Your task to perform on an android device: Open settings on Google Maps Image 0: 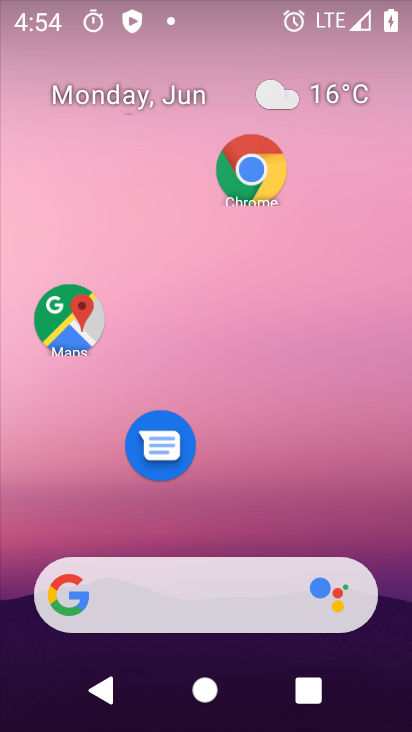
Step 0: click (70, 329)
Your task to perform on an android device: Open settings on Google Maps Image 1: 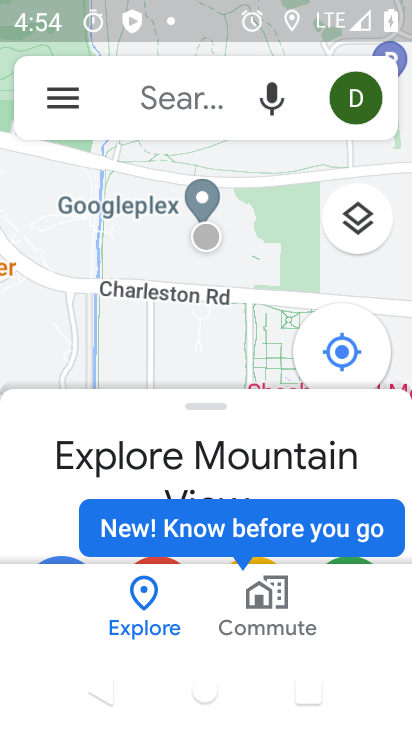
Step 1: drag from (123, 465) to (139, 218)
Your task to perform on an android device: Open settings on Google Maps Image 2: 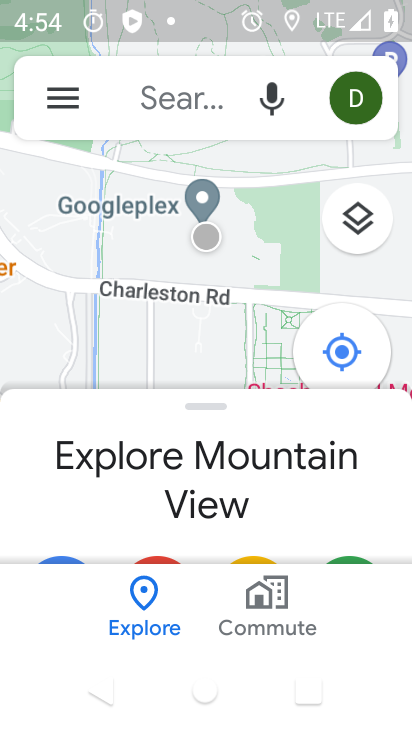
Step 2: click (151, 237)
Your task to perform on an android device: Open settings on Google Maps Image 3: 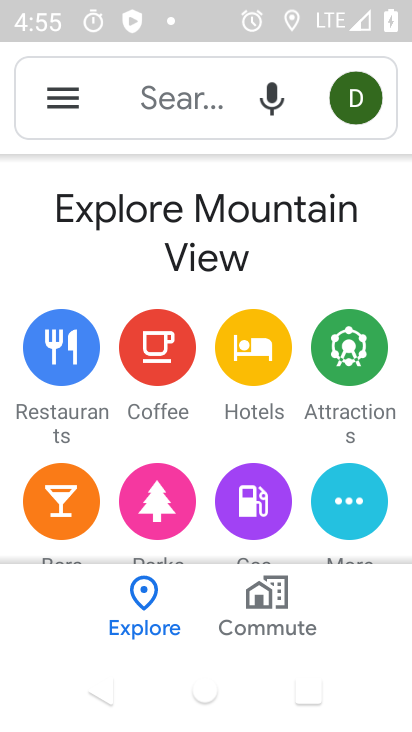
Step 3: press home button
Your task to perform on an android device: Open settings on Google Maps Image 4: 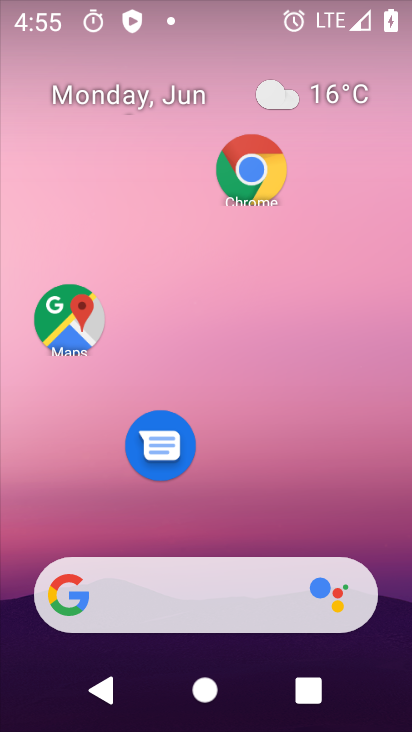
Step 4: click (67, 323)
Your task to perform on an android device: Open settings on Google Maps Image 5: 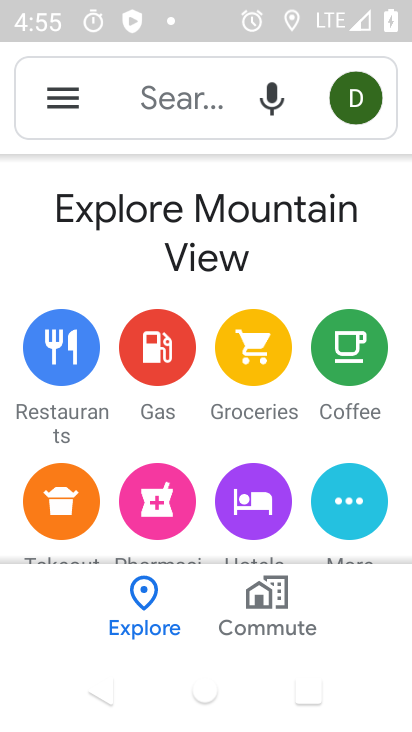
Step 5: drag from (209, 511) to (210, 358)
Your task to perform on an android device: Open settings on Google Maps Image 6: 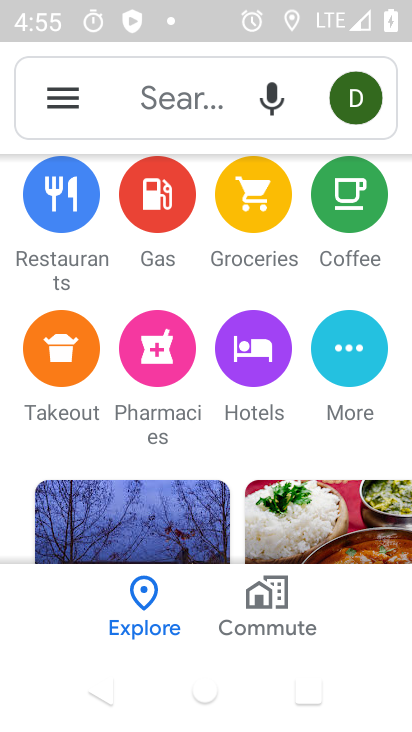
Step 6: click (52, 99)
Your task to perform on an android device: Open settings on Google Maps Image 7: 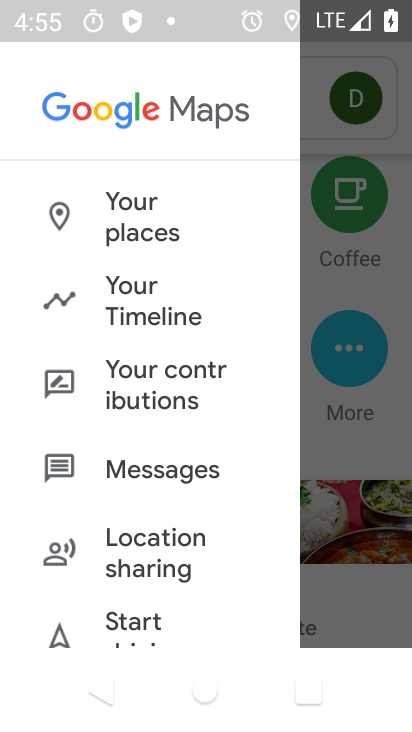
Step 7: drag from (153, 564) to (168, 379)
Your task to perform on an android device: Open settings on Google Maps Image 8: 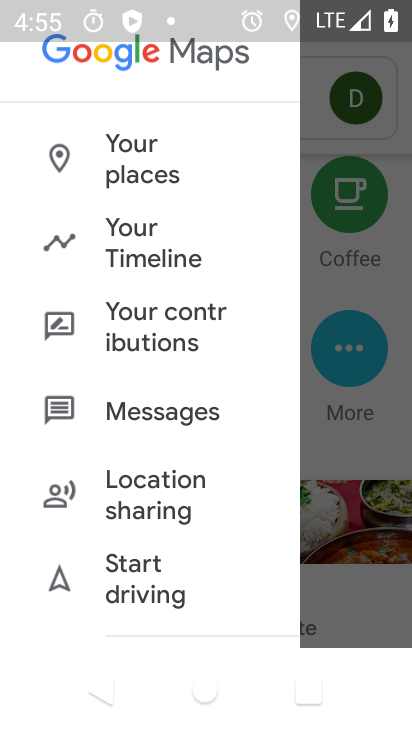
Step 8: drag from (151, 550) to (142, 350)
Your task to perform on an android device: Open settings on Google Maps Image 9: 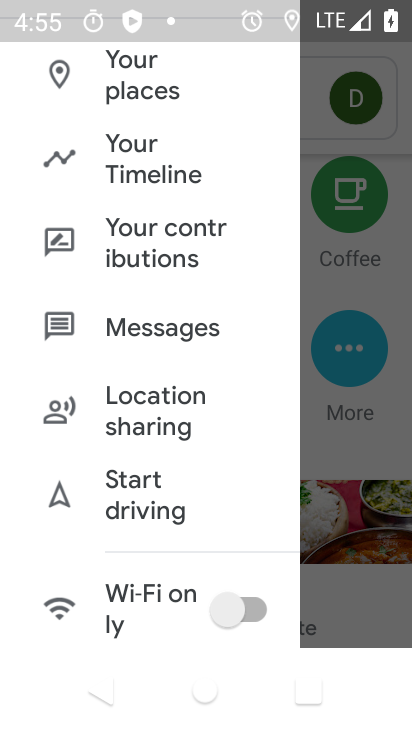
Step 9: drag from (136, 495) to (144, 377)
Your task to perform on an android device: Open settings on Google Maps Image 10: 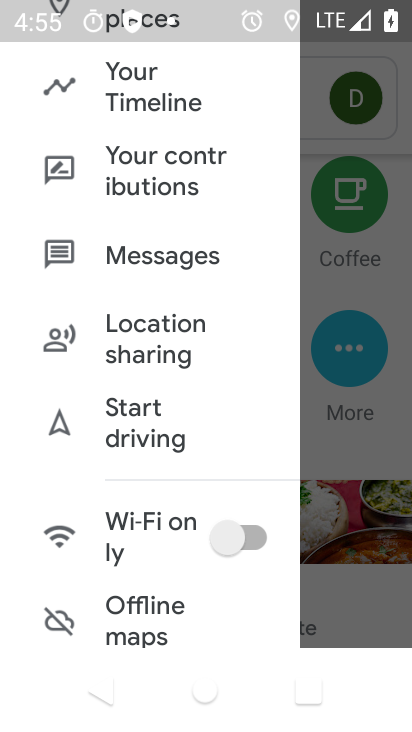
Step 10: click (158, 357)
Your task to perform on an android device: Open settings on Google Maps Image 11: 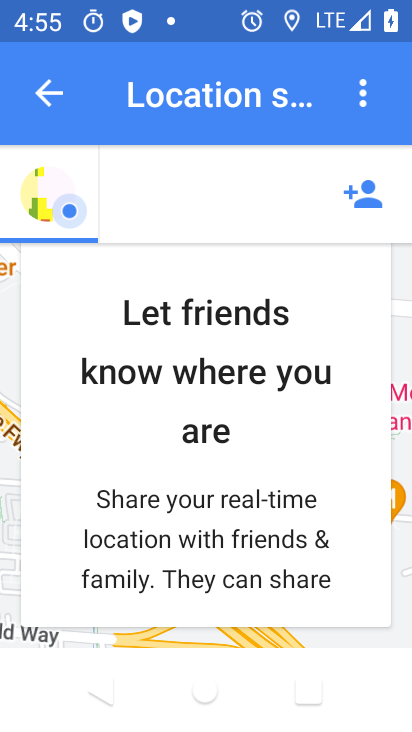
Step 11: click (39, 95)
Your task to perform on an android device: Open settings on Google Maps Image 12: 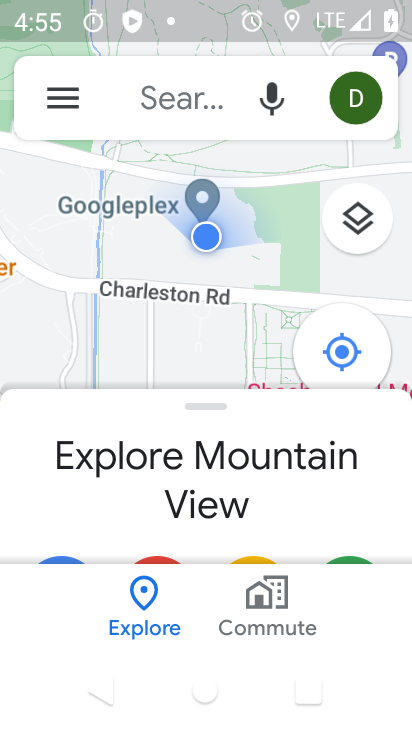
Step 12: click (61, 98)
Your task to perform on an android device: Open settings on Google Maps Image 13: 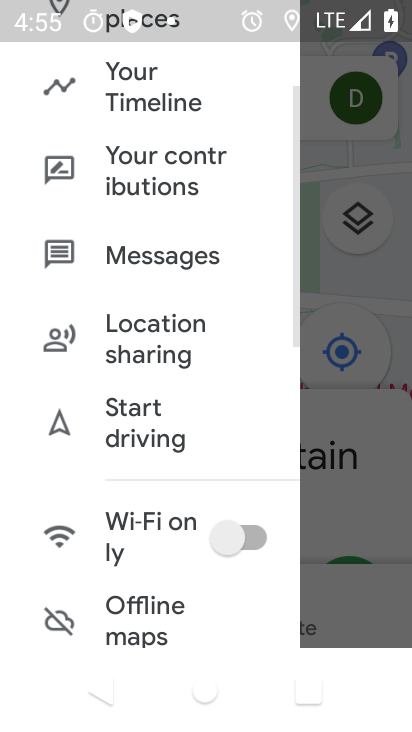
Step 13: drag from (154, 482) to (142, 255)
Your task to perform on an android device: Open settings on Google Maps Image 14: 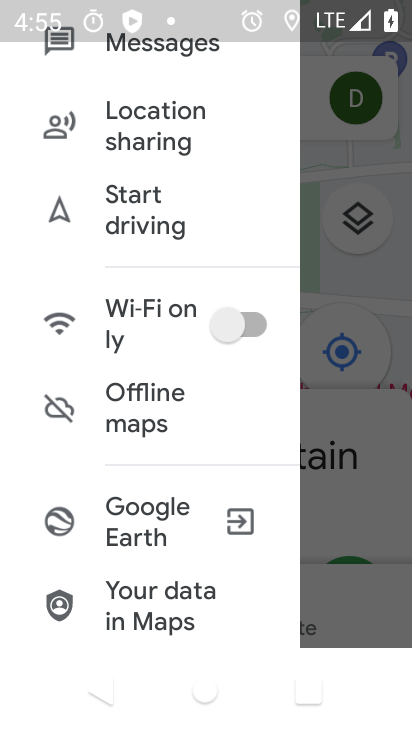
Step 14: drag from (143, 514) to (136, 285)
Your task to perform on an android device: Open settings on Google Maps Image 15: 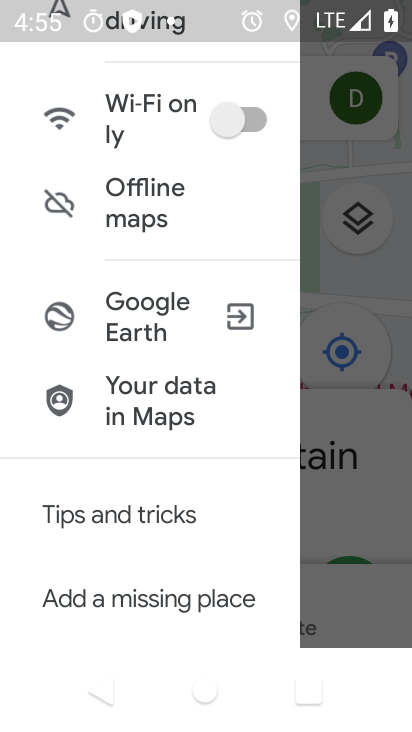
Step 15: drag from (139, 478) to (156, 270)
Your task to perform on an android device: Open settings on Google Maps Image 16: 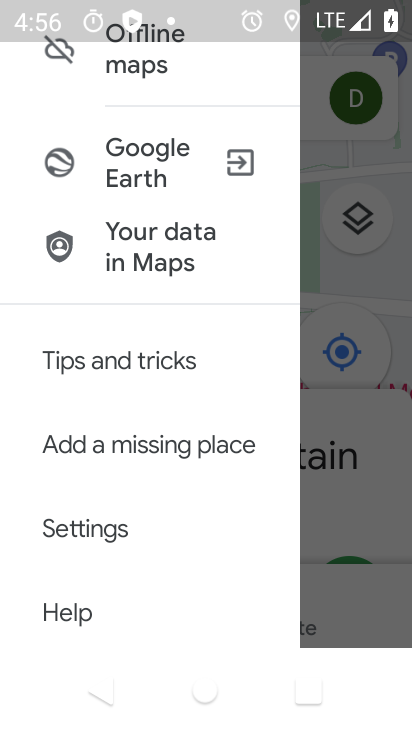
Step 16: click (89, 525)
Your task to perform on an android device: Open settings on Google Maps Image 17: 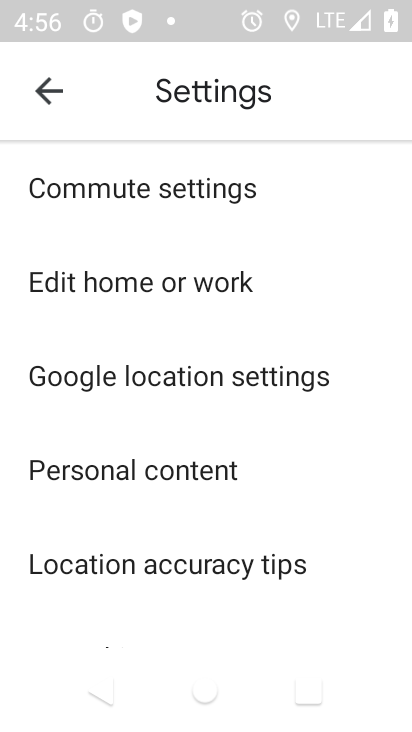
Step 17: task complete